Your task to perform on an android device: set the stopwatch Image 0: 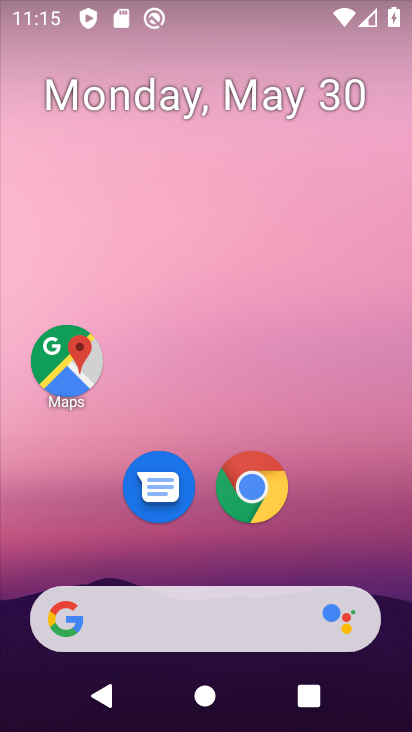
Step 0: drag from (316, 540) to (183, 125)
Your task to perform on an android device: set the stopwatch Image 1: 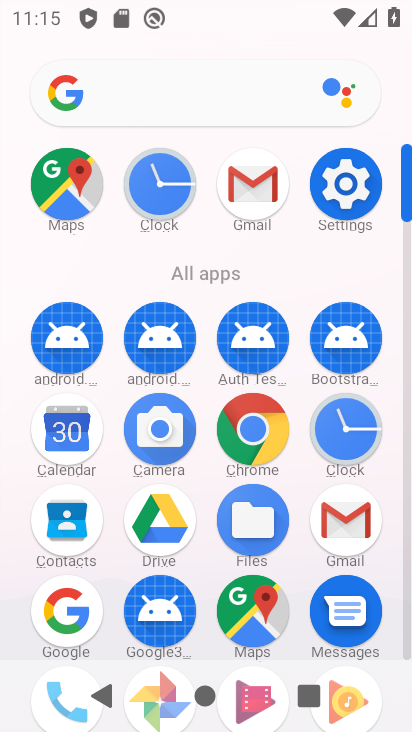
Step 1: click (344, 433)
Your task to perform on an android device: set the stopwatch Image 2: 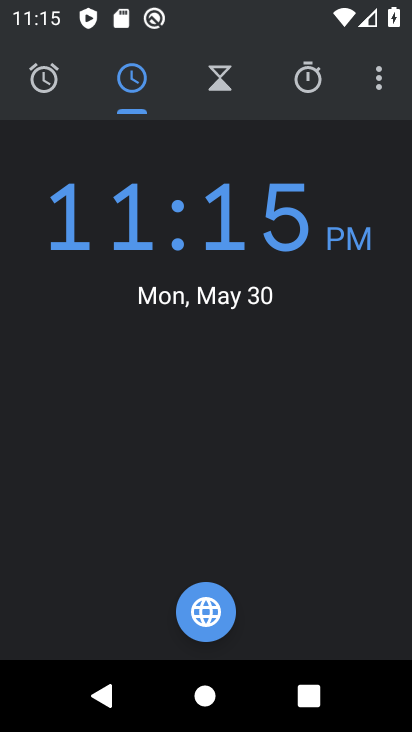
Step 2: task complete